Your task to perform on an android device: Open ESPN.com Image 0: 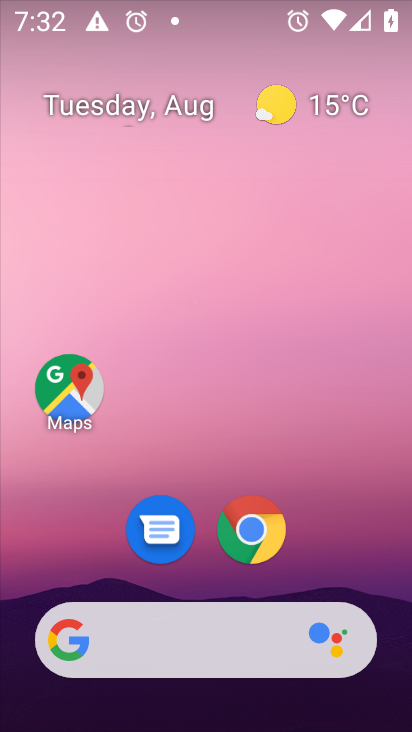
Step 0: press home button
Your task to perform on an android device: Open ESPN.com Image 1: 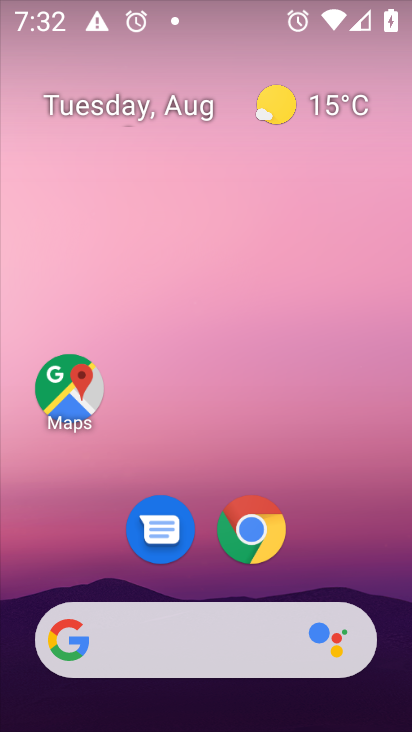
Step 1: click (71, 647)
Your task to perform on an android device: Open ESPN.com Image 2: 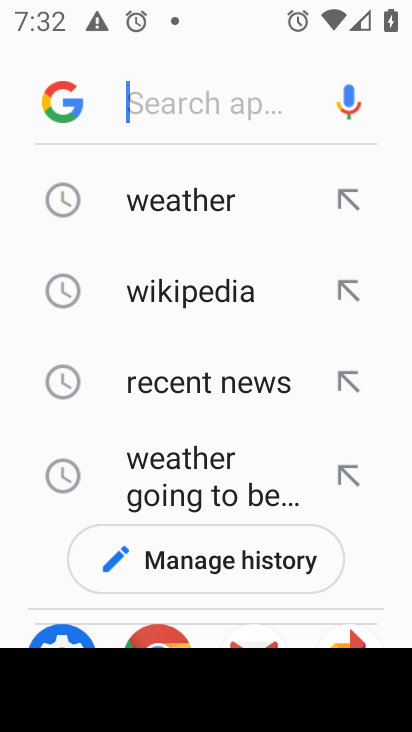
Step 2: type " ESPN.com"
Your task to perform on an android device: Open ESPN.com Image 3: 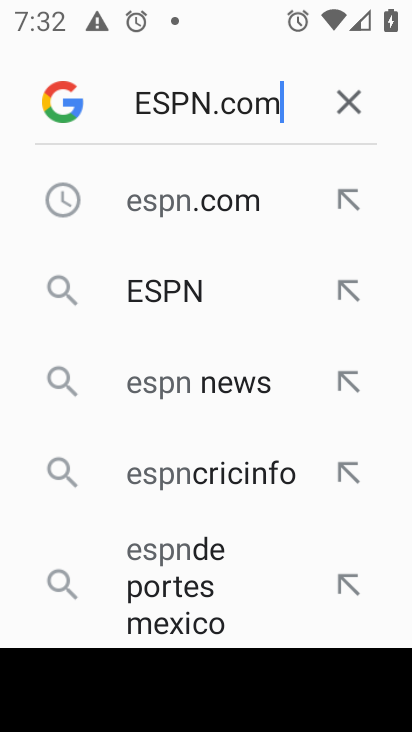
Step 3: press enter
Your task to perform on an android device: Open ESPN.com Image 4: 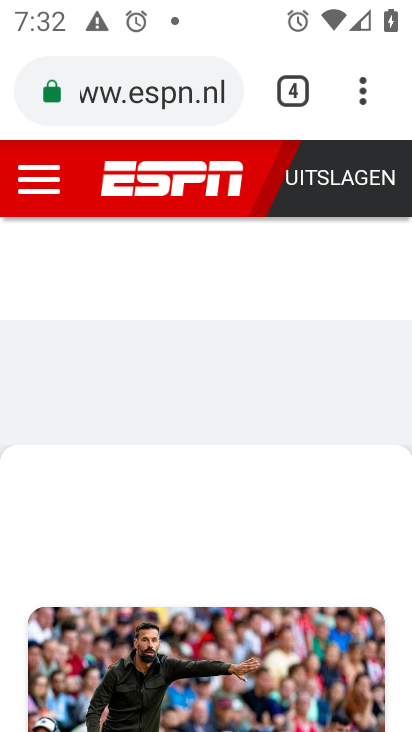
Step 4: task complete